Your task to perform on an android device: Show me popular games on the Play Store Image 0: 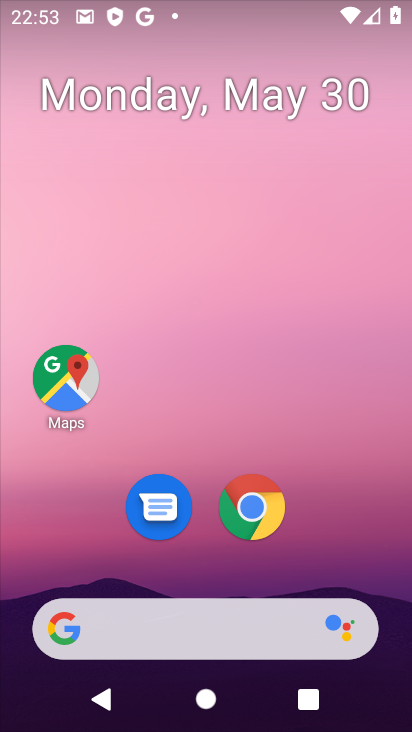
Step 0: drag from (375, 557) to (375, 76)
Your task to perform on an android device: Show me popular games on the Play Store Image 1: 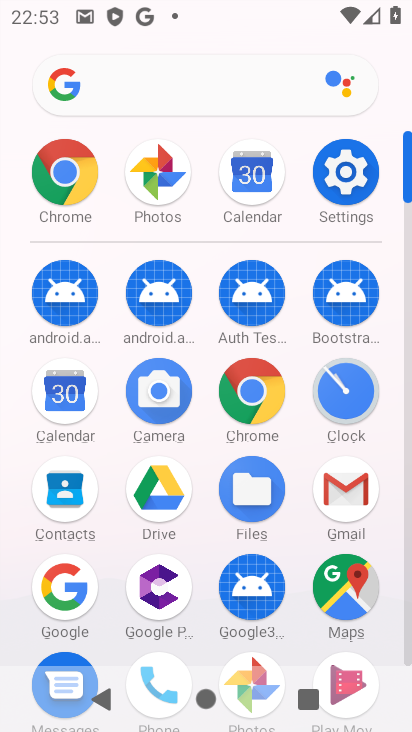
Step 1: drag from (385, 601) to (384, 338)
Your task to perform on an android device: Show me popular games on the Play Store Image 2: 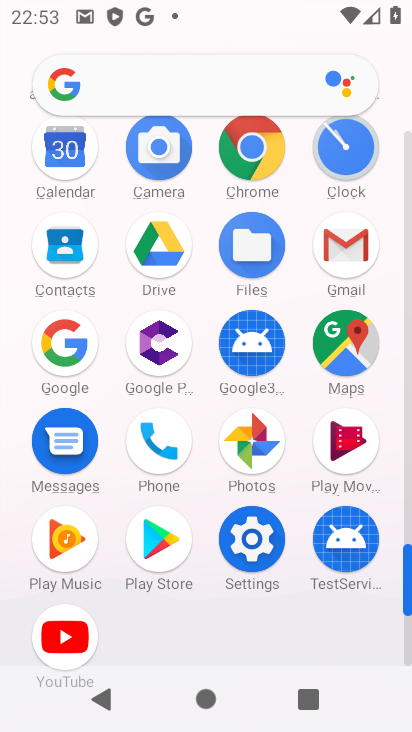
Step 2: click (163, 538)
Your task to perform on an android device: Show me popular games on the Play Store Image 3: 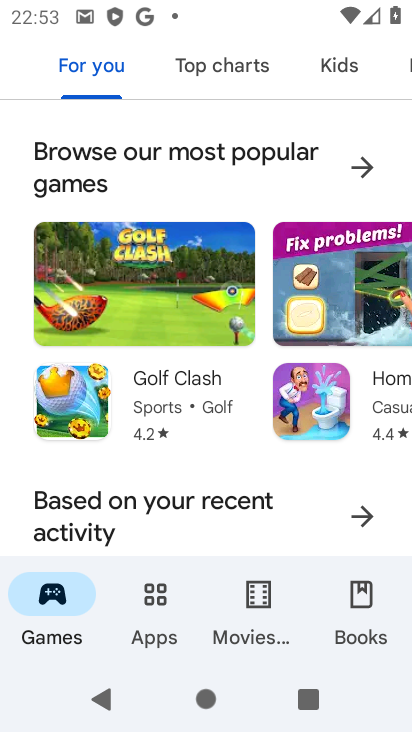
Step 3: task complete